Your task to perform on an android device: toggle show notifications on the lock screen Image 0: 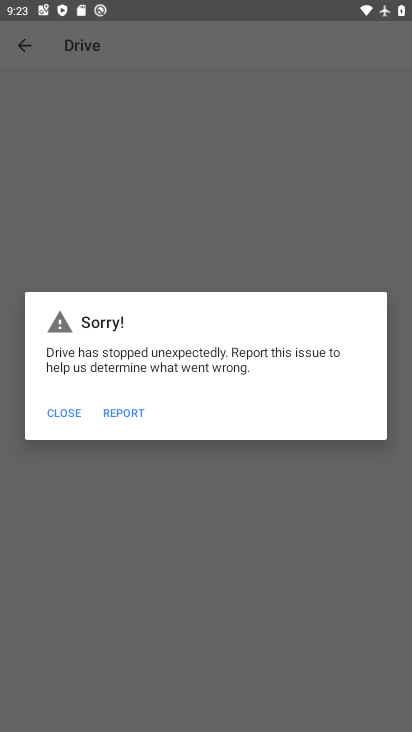
Step 0: click (60, 420)
Your task to perform on an android device: toggle show notifications on the lock screen Image 1: 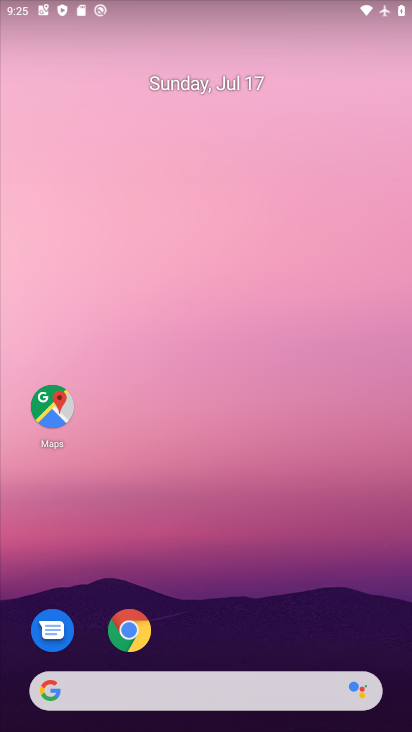
Step 1: drag from (244, 652) to (293, 364)
Your task to perform on an android device: toggle show notifications on the lock screen Image 2: 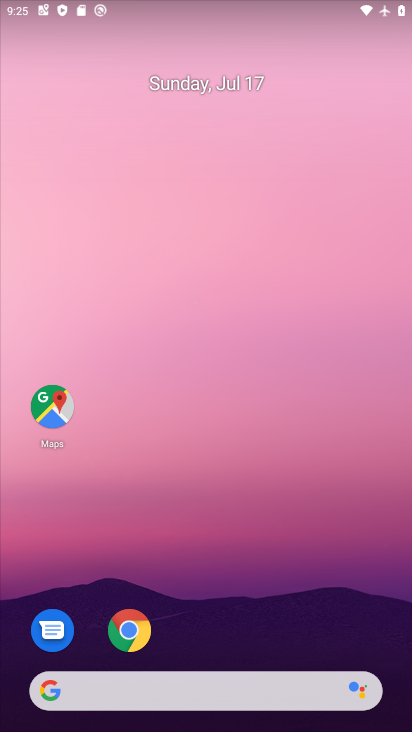
Step 2: drag from (258, 635) to (272, 344)
Your task to perform on an android device: toggle show notifications on the lock screen Image 3: 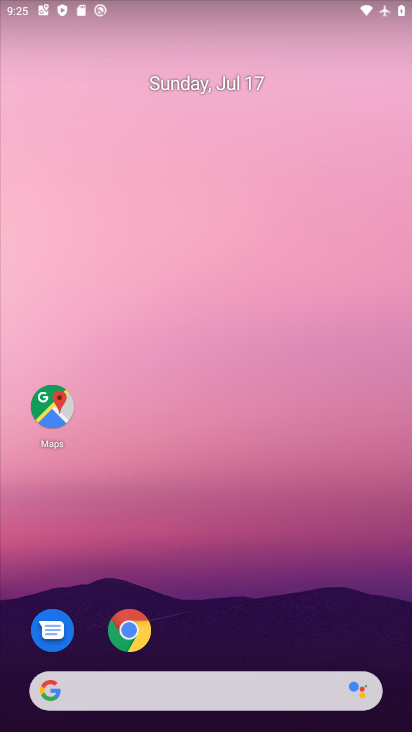
Step 3: drag from (273, 638) to (304, 247)
Your task to perform on an android device: toggle show notifications on the lock screen Image 4: 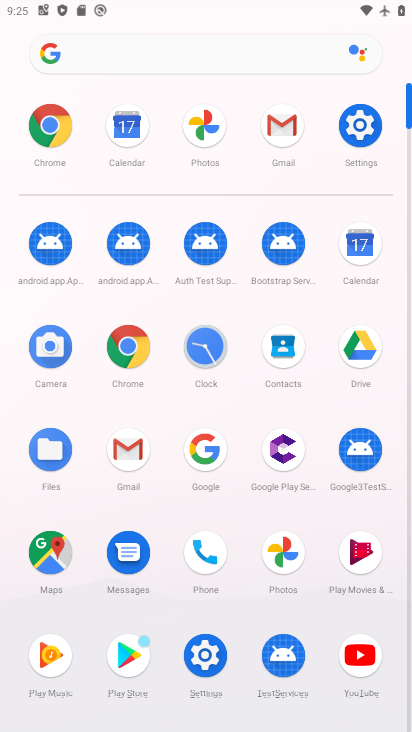
Step 4: click (353, 141)
Your task to perform on an android device: toggle show notifications on the lock screen Image 5: 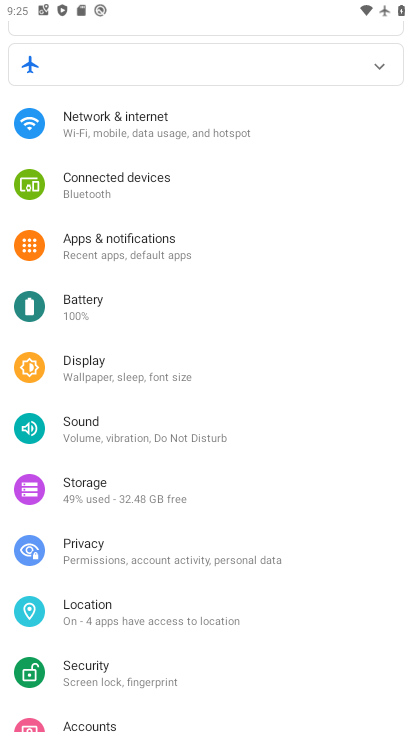
Step 5: click (199, 245)
Your task to perform on an android device: toggle show notifications on the lock screen Image 6: 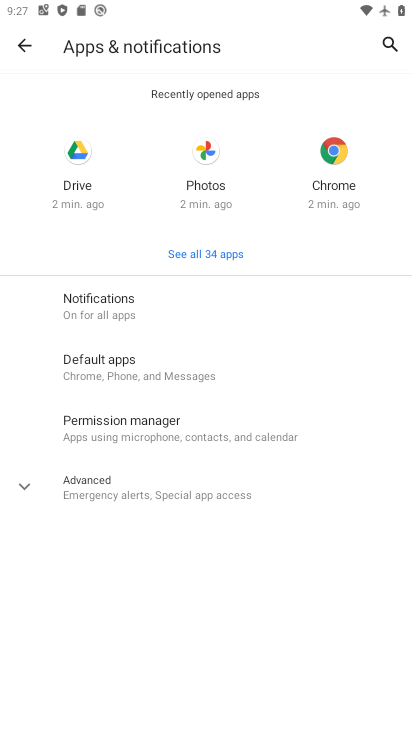
Step 6: task complete